Your task to perform on an android device: Open Google Chrome and click the shortcut for Amazon.com Image 0: 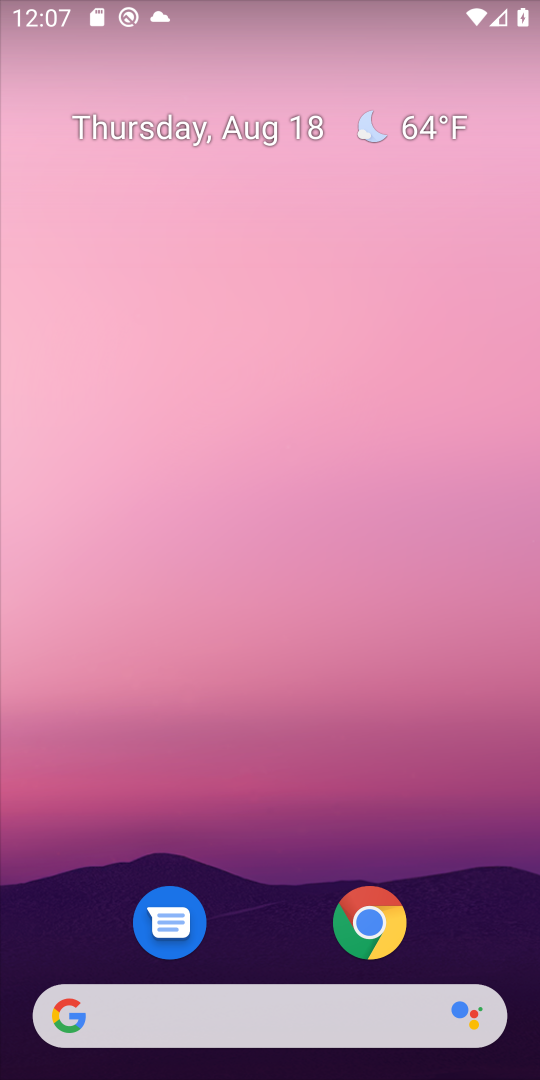
Step 0: click (372, 922)
Your task to perform on an android device: Open Google Chrome and click the shortcut for Amazon.com Image 1: 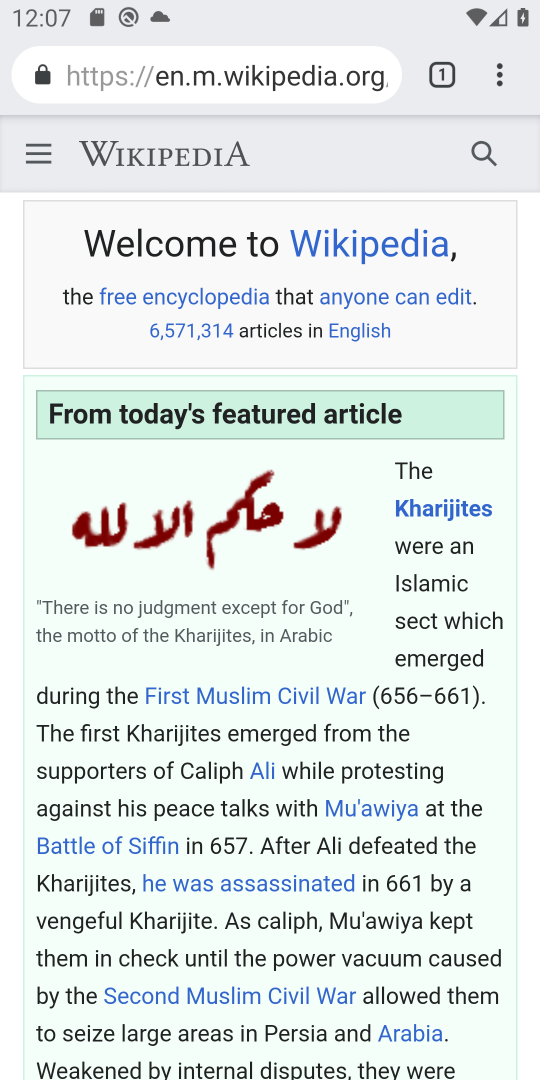
Step 1: click (500, 66)
Your task to perform on an android device: Open Google Chrome and click the shortcut for Amazon.com Image 2: 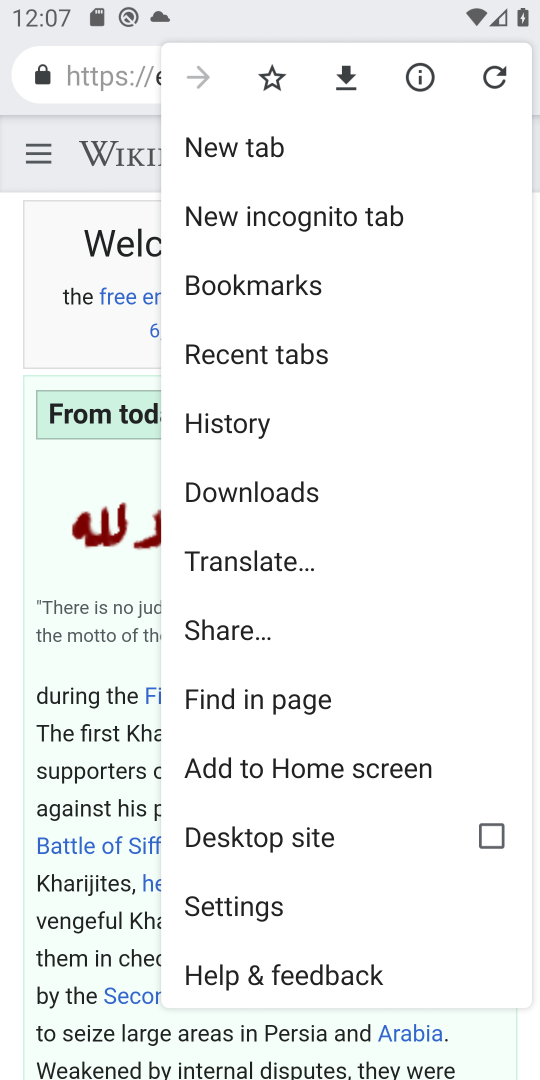
Step 2: click (262, 140)
Your task to perform on an android device: Open Google Chrome and click the shortcut for Amazon.com Image 3: 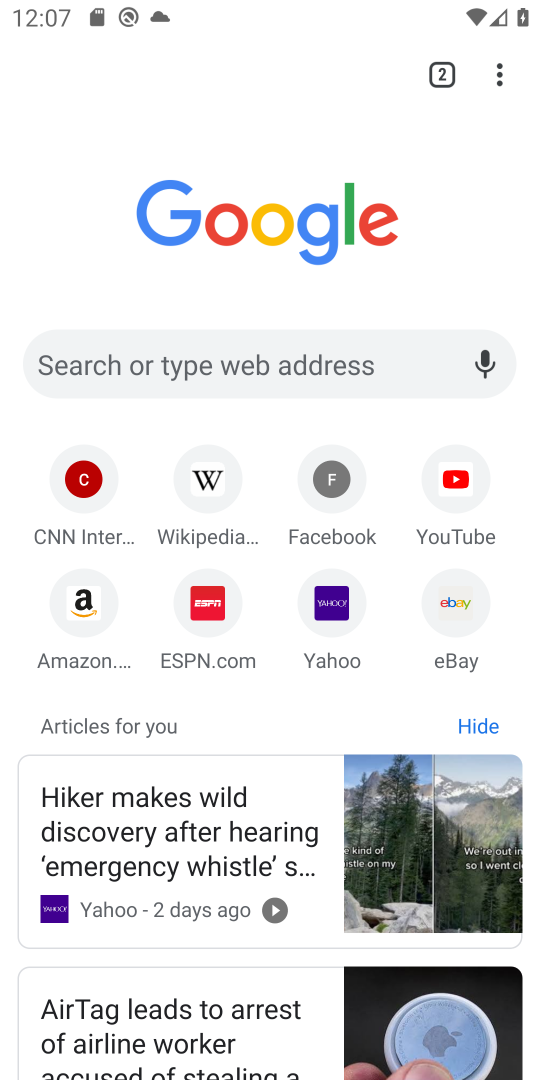
Step 3: click (65, 593)
Your task to perform on an android device: Open Google Chrome and click the shortcut for Amazon.com Image 4: 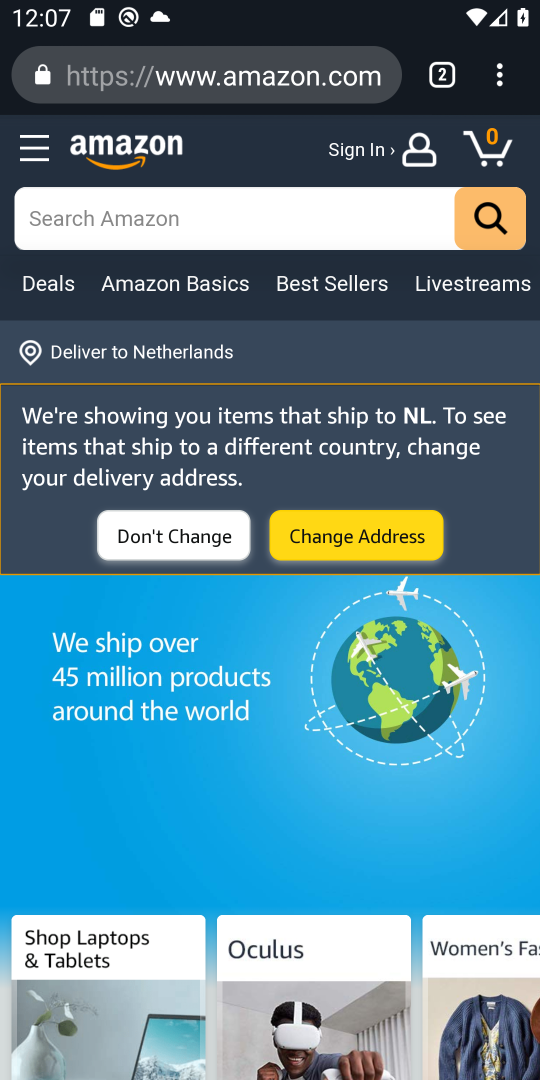
Step 4: task complete